Your task to perform on an android device: toggle improve location accuracy Image 0: 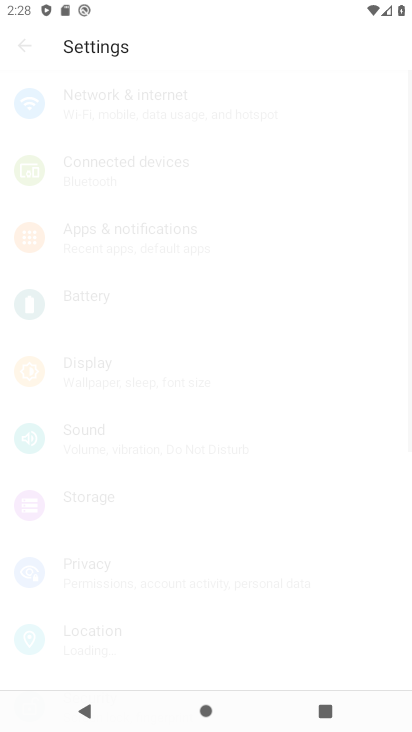
Step 0: press back button
Your task to perform on an android device: toggle improve location accuracy Image 1: 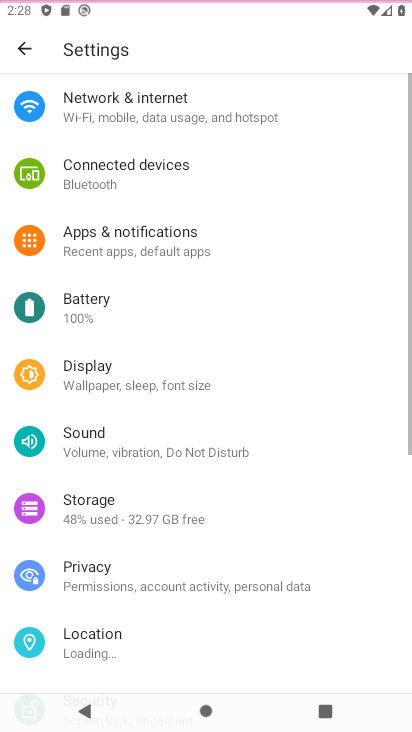
Step 1: click (32, 48)
Your task to perform on an android device: toggle improve location accuracy Image 2: 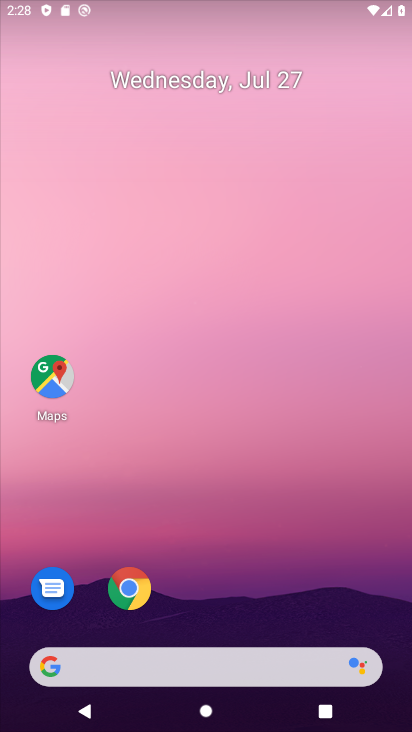
Step 2: drag from (161, 493) to (72, 38)
Your task to perform on an android device: toggle improve location accuracy Image 3: 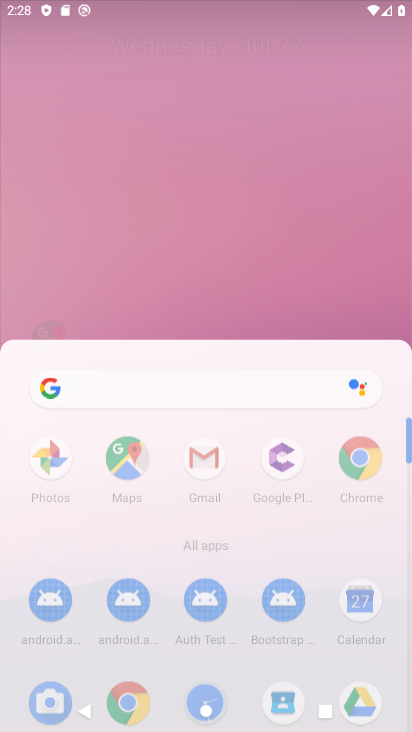
Step 3: drag from (188, 132) to (267, 2)
Your task to perform on an android device: toggle improve location accuracy Image 4: 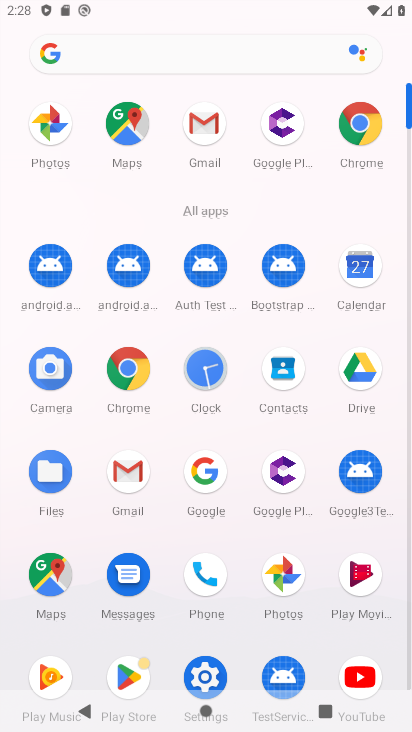
Step 4: click (360, 266)
Your task to perform on an android device: toggle improve location accuracy Image 5: 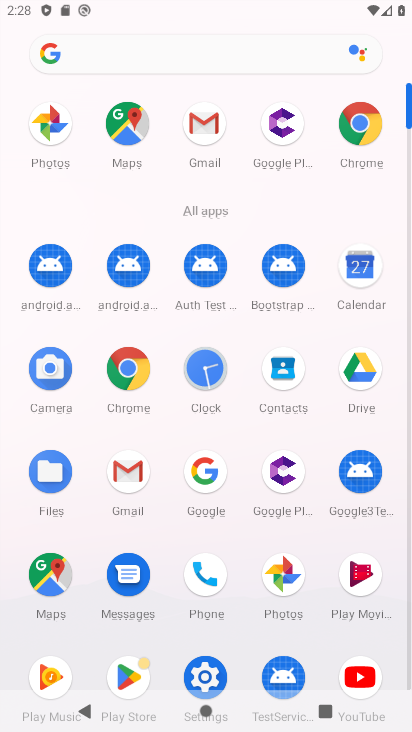
Step 5: click (363, 276)
Your task to perform on an android device: toggle improve location accuracy Image 6: 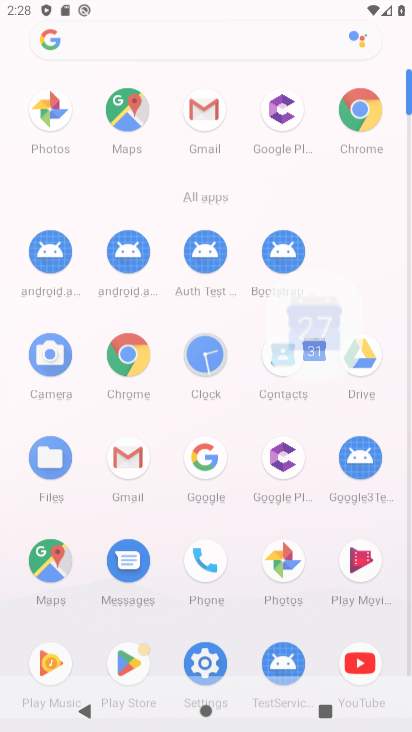
Step 6: click (367, 273)
Your task to perform on an android device: toggle improve location accuracy Image 7: 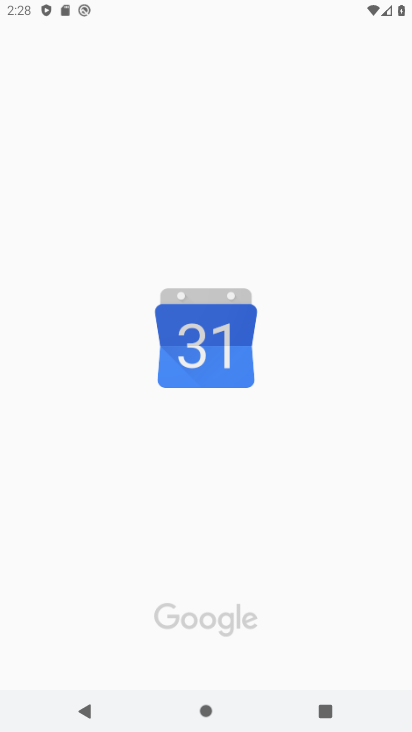
Step 7: click (368, 272)
Your task to perform on an android device: toggle improve location accuracy Image 8: 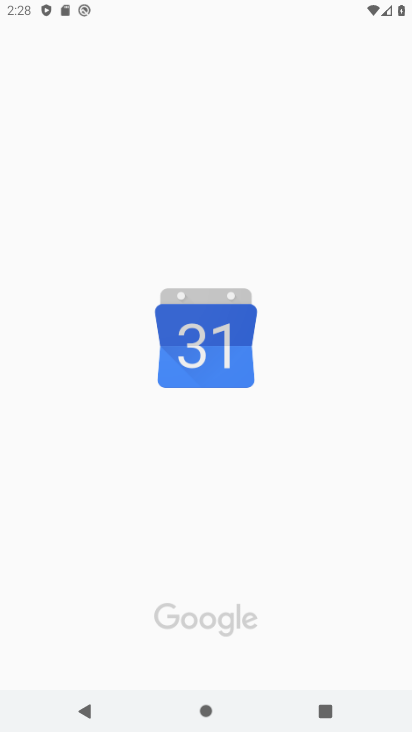
Step 8: click (367, 272)
Your task to perform on an android device: toggle improve location accuracy Image 9: 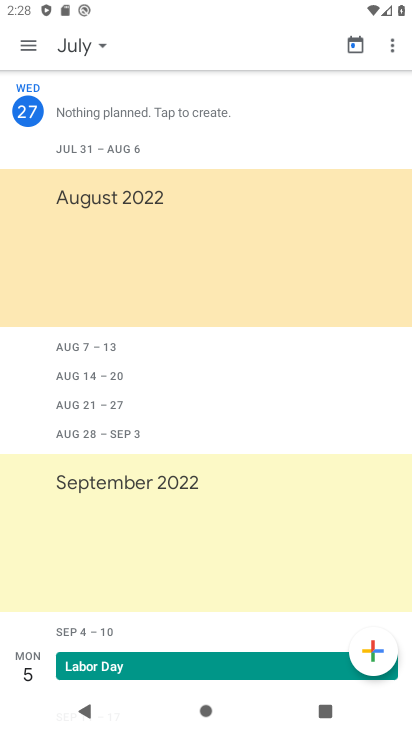
Step 9: click (23, 46)
Your task to perform on an android device: toggle improve location accuracy Image 10: 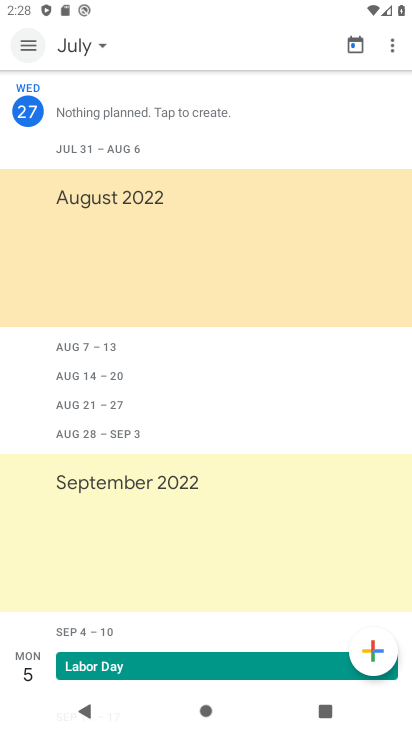
Step 10: click (23, 45)
Your task to perform on an android device: toggle improve location accuracy Image 11: 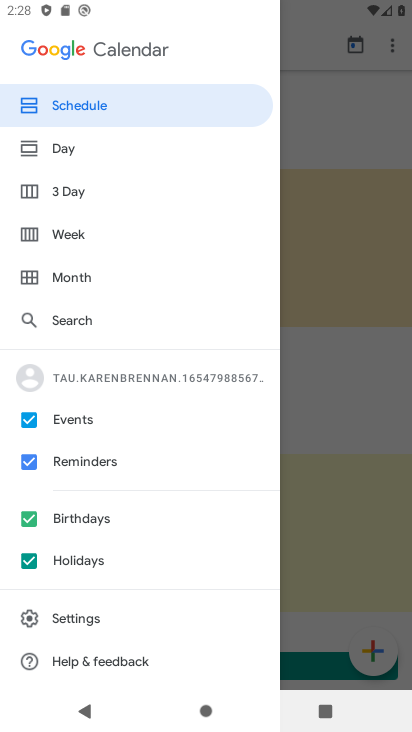
Step 11: click (333, 375)
Your task to perform on an android device: toggle improve location accuracy Image 12: 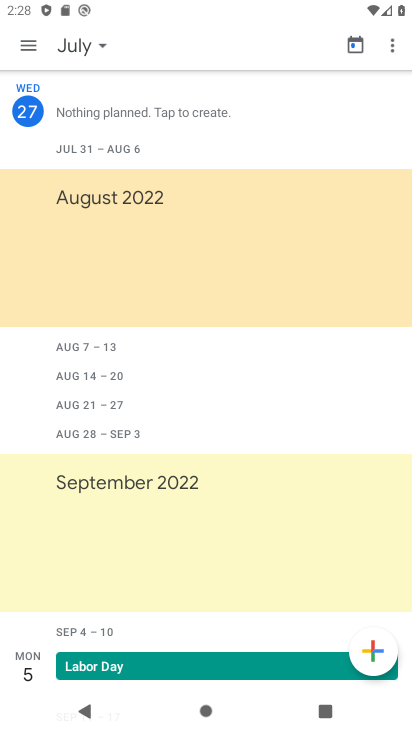
Step 12: press back button
Your task to perform on an android device: toggle improve location accuracy Image 13: 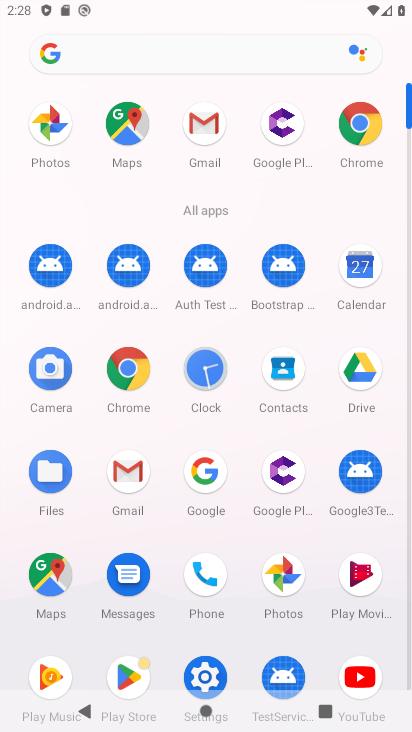
Step 13: click (199, 666)
Your task to perform on an android device: toggle improve location accuracy Image 14: 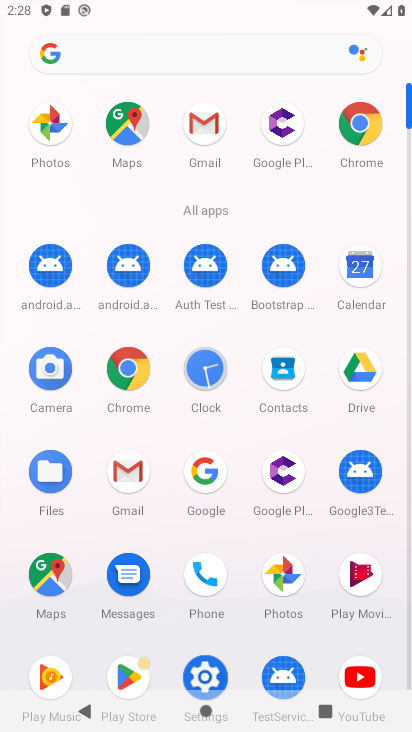
Step 14: click (199, 665)
Your task to perform on an android device: toggle improve location accuracy Image 15: 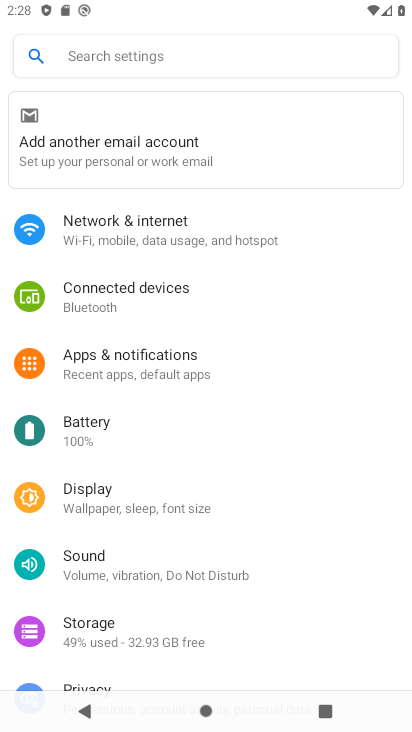
Step 15: drag from (113, 636) to (81, 127)
Your task to perform on an android device: toggle improve location accuracy Image 16: 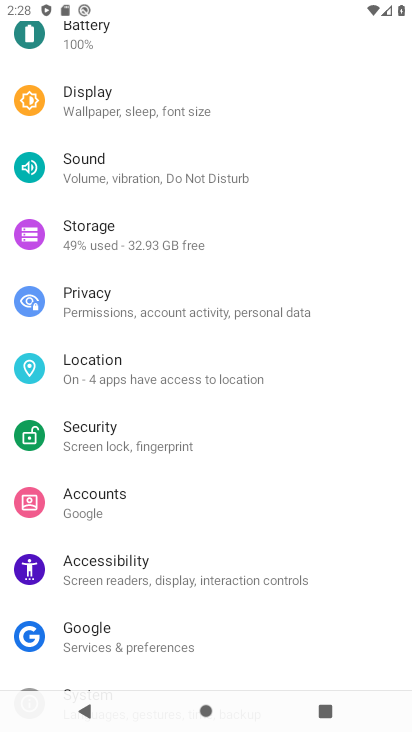
Step 16: drag from (107, 275) to (90, 120)
Your task to perform on an android device: toggle improve location accuracy Image 17: 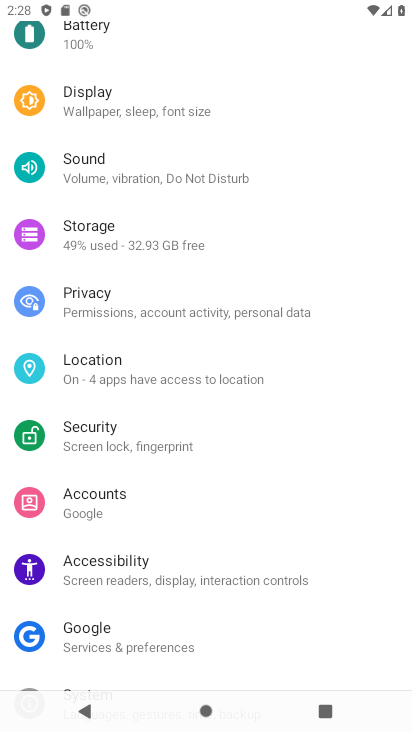
Step 17: drag from (136, 503) to (103, 124)
Your task to perform on an android device: toggle improve location accuracy Image 18: 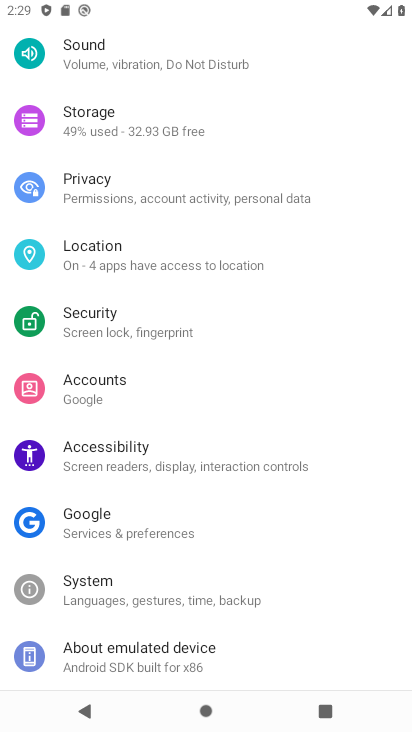
Step 18: click (107, 260)
Your task to perform on an android device: toggle improve location accuracy Image 19: 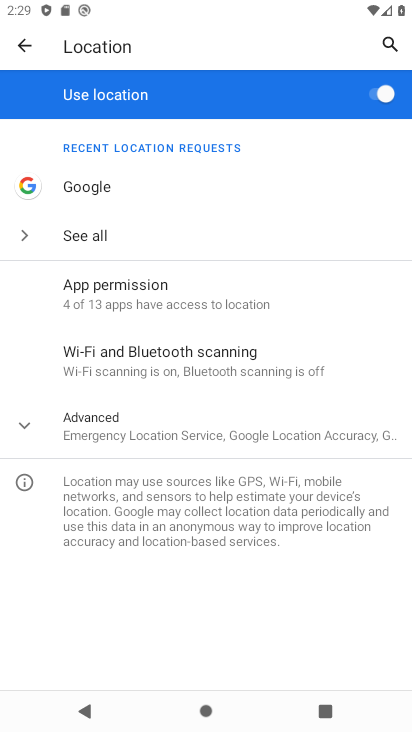
Step 19: click (116, 430)
Your task to perform on an android device: toggle improve location accuracy Image 20: 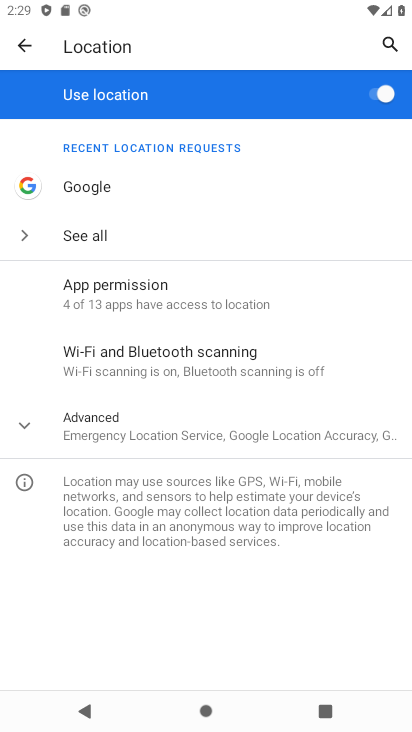
Step 20: click (119, 427)
Your task to perform on an android device: toggle improve location accuracy Image 21: 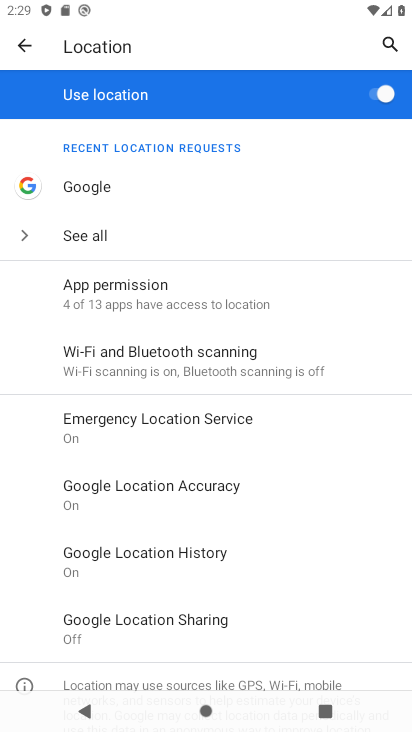
Step 21: click (162, 481)
Your task to perform on an android device: toggle improve location accuracy Image 22: 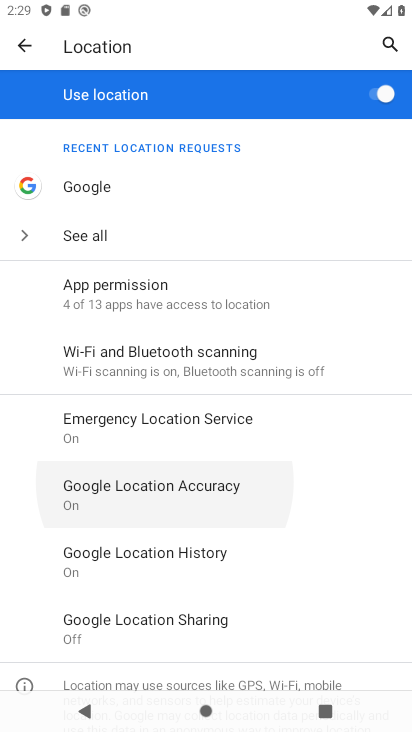
Step 22: click (165, 476)
Your task to perform on an android device: toggle improve location accuracy Image 23: 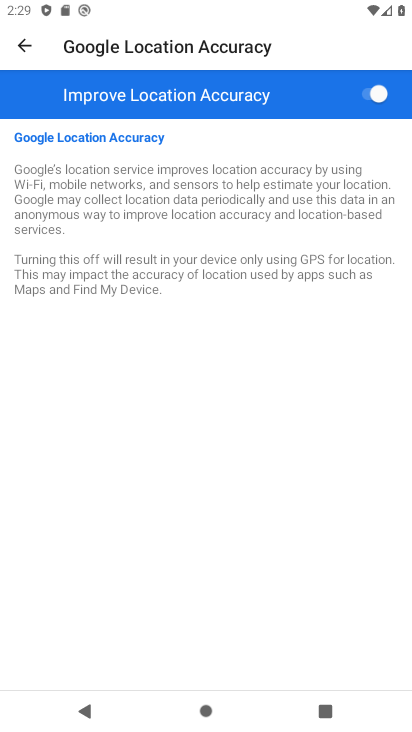
Step 23: click (358, 102)
Your task to perform on an android device: toggle improve location accuracy Image 24: 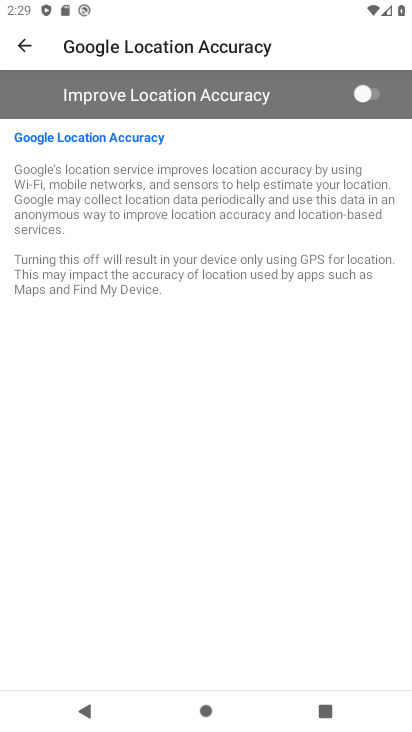
Step 24: task complete